Your task to perform on an android device: open chrome privacy settings Image 0: 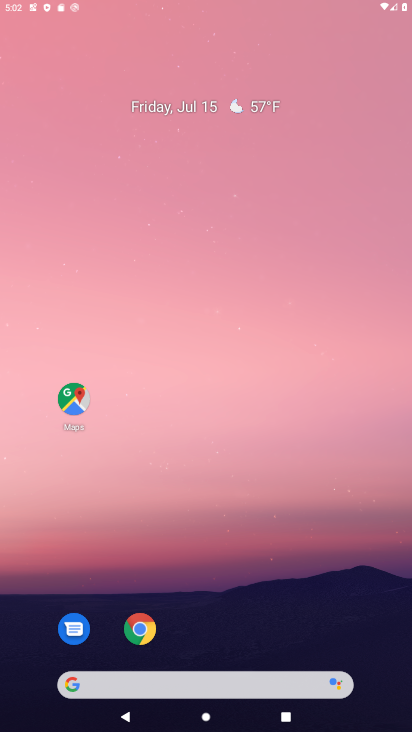
Step 0: press home button
Your task to perform on an android device: open chrome privacy settings Image 1: 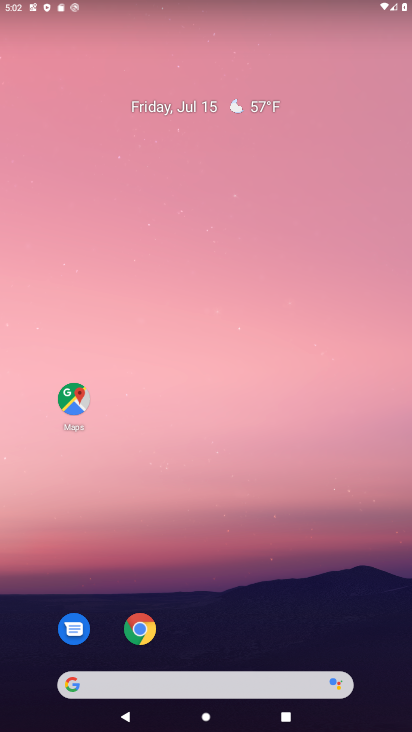
Step 1: drag from (265, 598) to (260, 26)
Your task to perform on an android device: open chrome privacy settings Image 2: 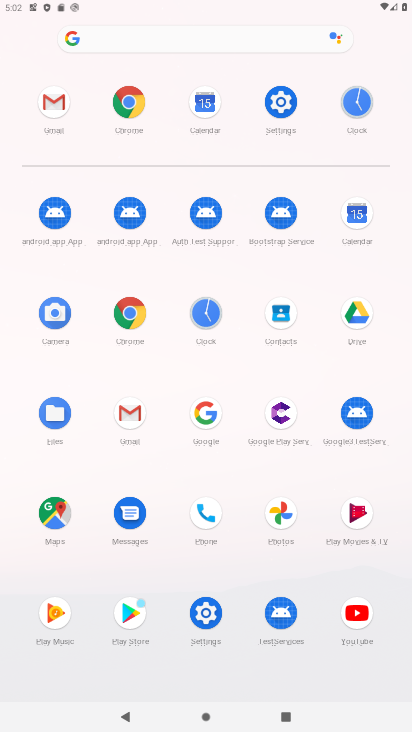
Step 2: click (123, 308)
Your task to perform on an android device: open chrome privacy settings Image 3: 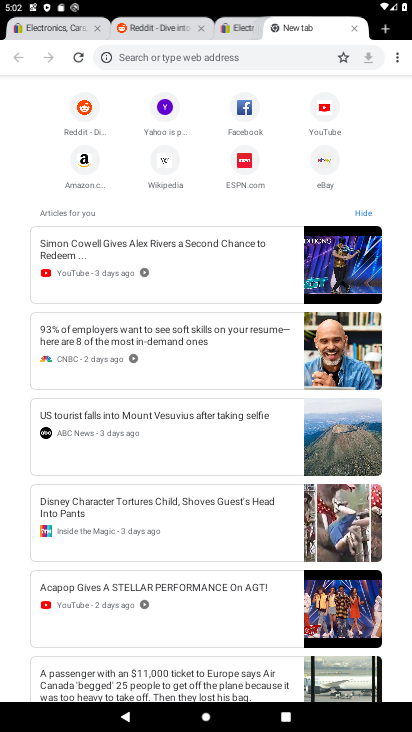
Step 3: drag from (396, 52) to (268, 265)
Your task to perform on an android device: open chrome privacy settings Image 4: 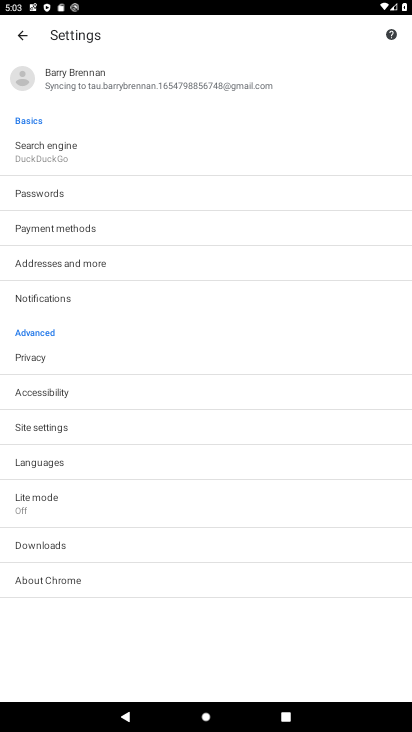
Step 4: click (32, 354)
Your task to perform on an android device: open chrome privacy settings Image 5: 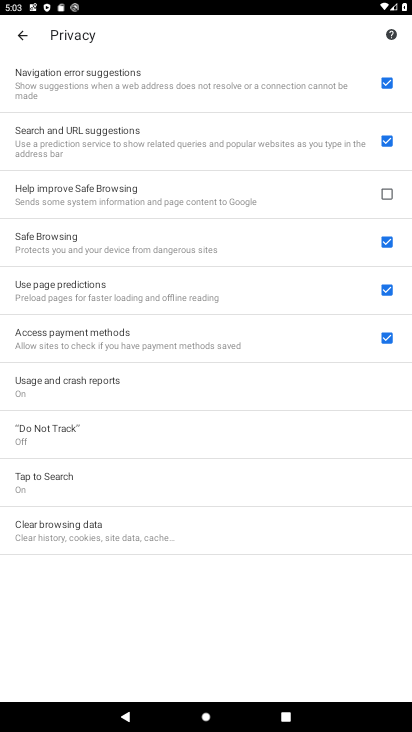
Step 5: task complete